Your task to perform on an android device: turn smart compose on in the gmail app Image 0: 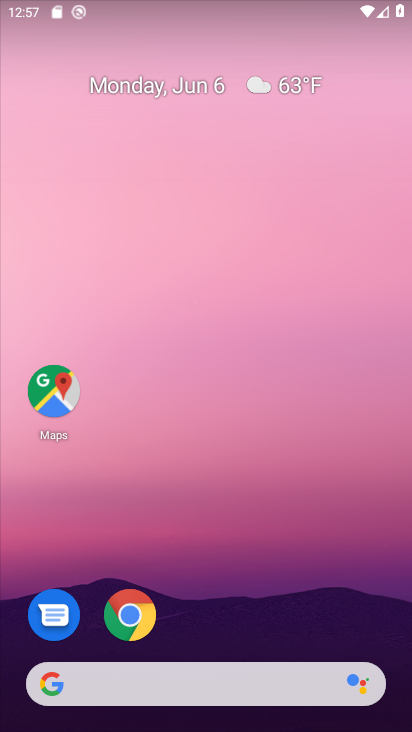
Step 0: drag from (221, 632) to (233, 6)
Your task to perform on an android device: turn smart compose on in the gmail app Image 1: 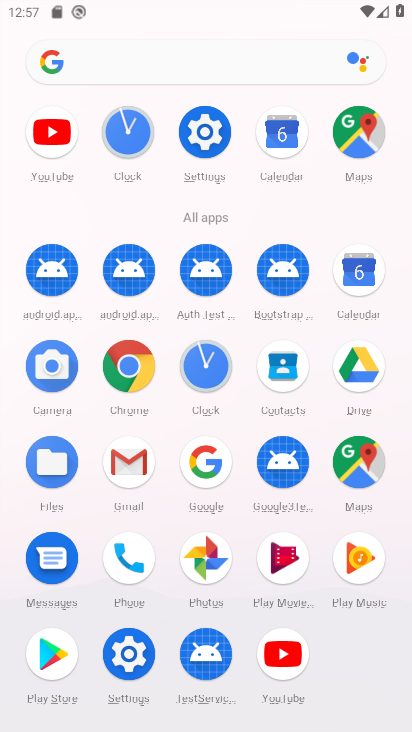
Step 1: click (117, 460)
Your task to perform on an android device: turn smart compose on in the gmail app Image 2: 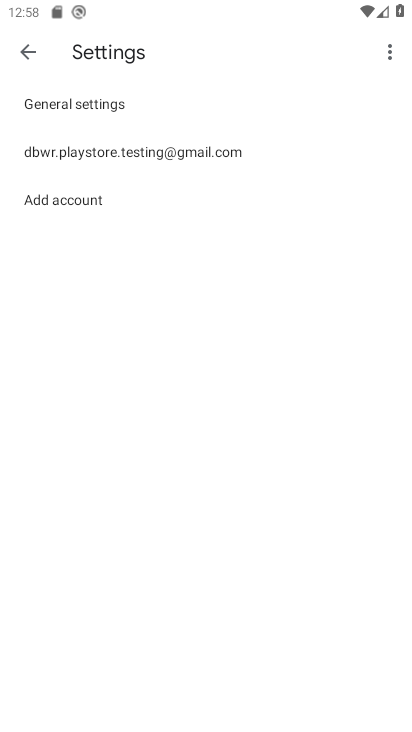
Step 2: click (194, 151)
Your task to perform on an android device: turn smart compose on in the gmail app Image 3: 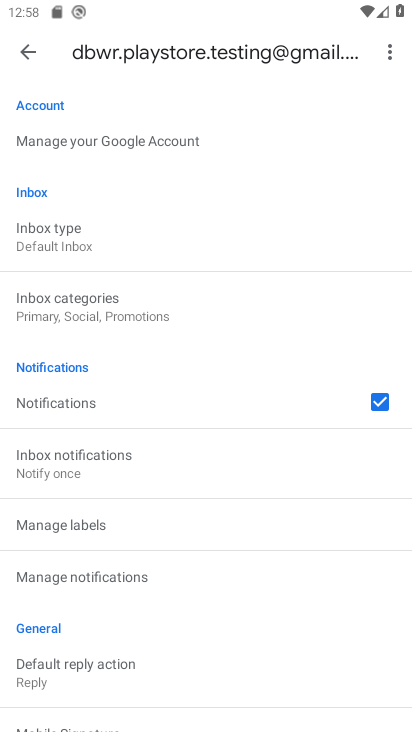
Step 3: task complete